Your task to perform on an android device: Open Wikipedia Image 0: 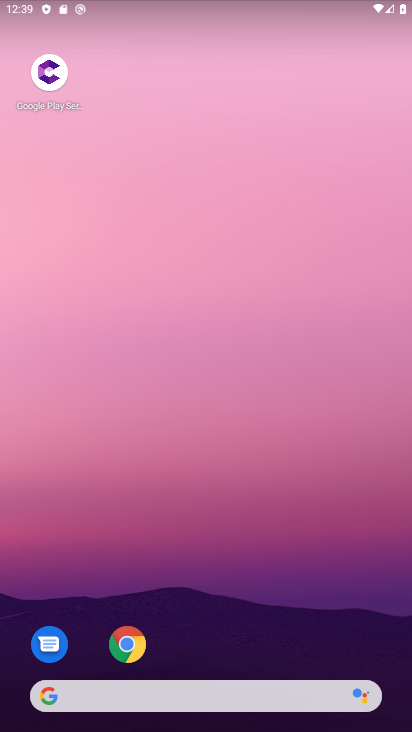
Step 0: click (91, 693)
Your task to perform on an android device: Open Wikipedia Image 1: 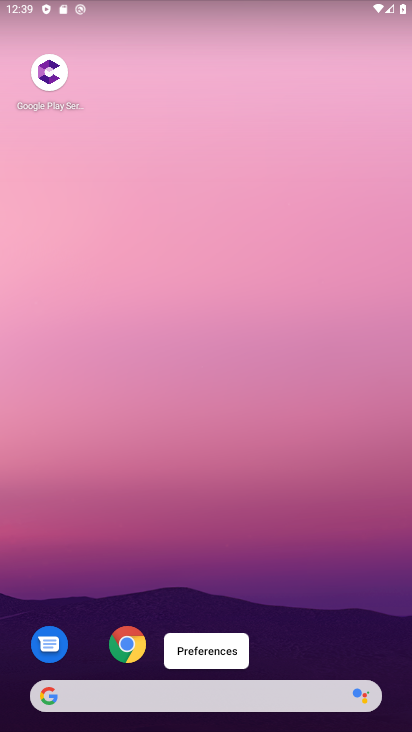
Step 1: click (96, 691)
Your task to perform on an android device: Open Wikipedia Image 2: 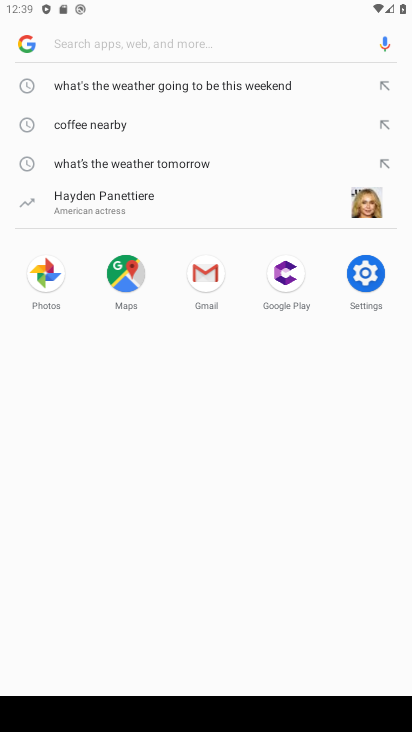
Step 2: type "Wikipedia"
Your task to perform on an android device: Open Wikipedia Image 3: 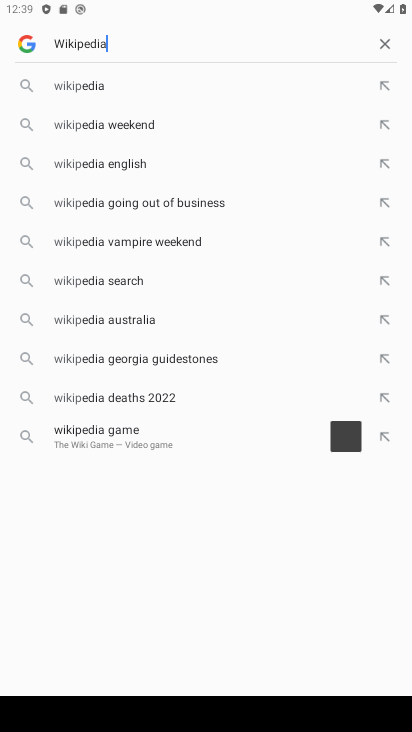
Step 3: type ""
Your task to perform on an android device: Open Wikipedia Image 4: 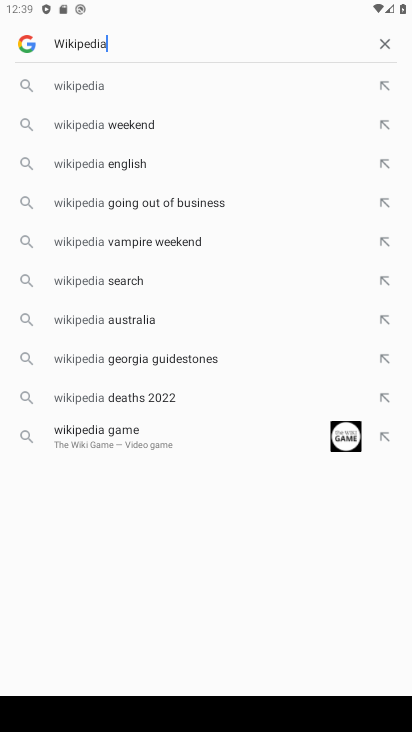
Step 4: click (149, 37)
Your task to perform on an android device: Open Wikipedia Image 5: 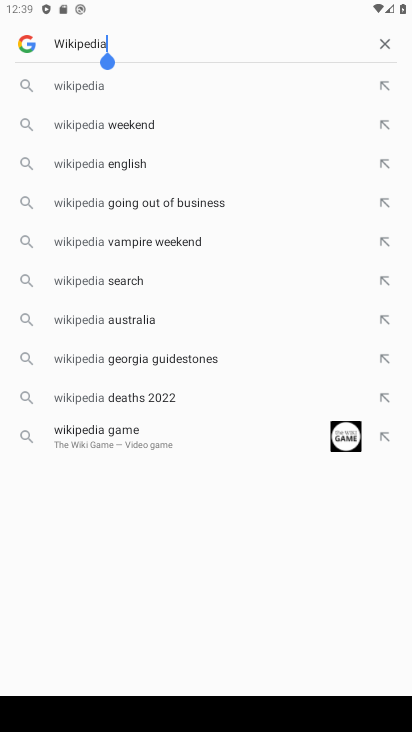
Step 5: click (90, 86)
Your task to perform on an android device: Open Wikipedia Image 6: 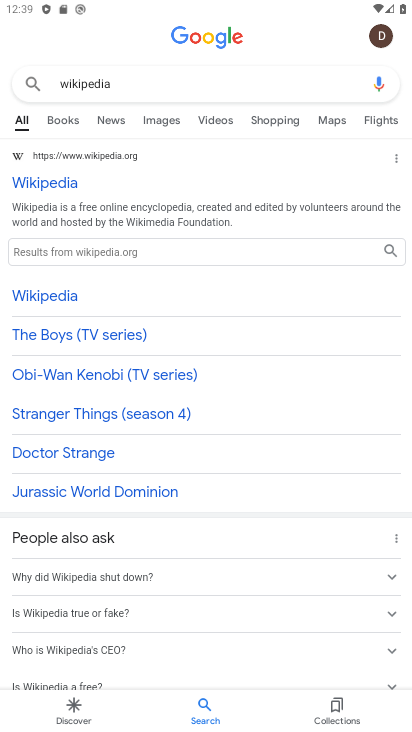
Step 6: task complete